Your task to perform on an android device: Open battery settings Image 0: 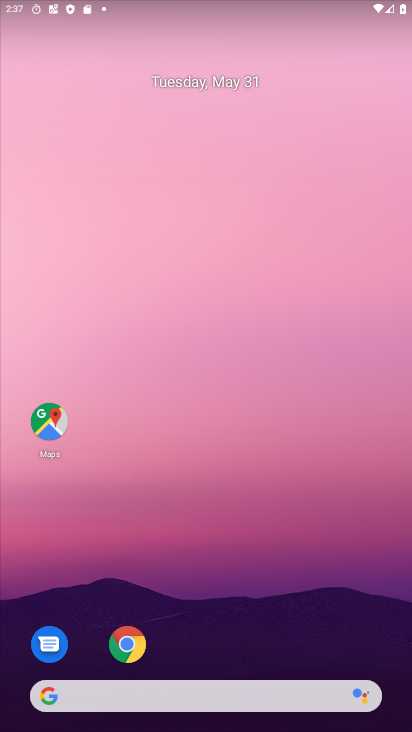
Step 0: drag from (360, 546) to (277, 122)
Your task to perform on an android device: Open battery settings Image 1: 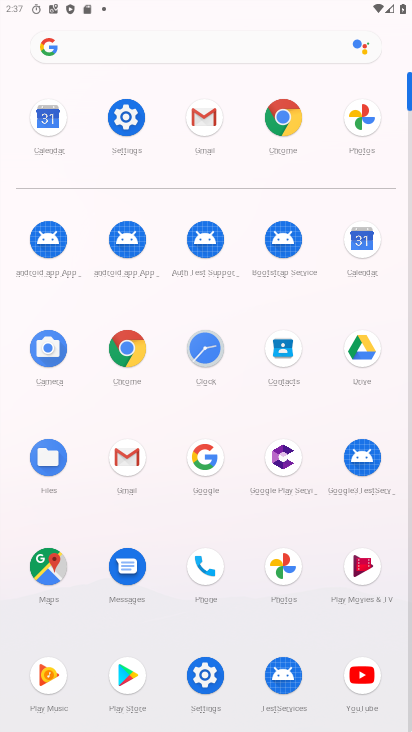
Step 1: click (113, 126)
Your task to perform on an android device: Open battery settings Image 2: 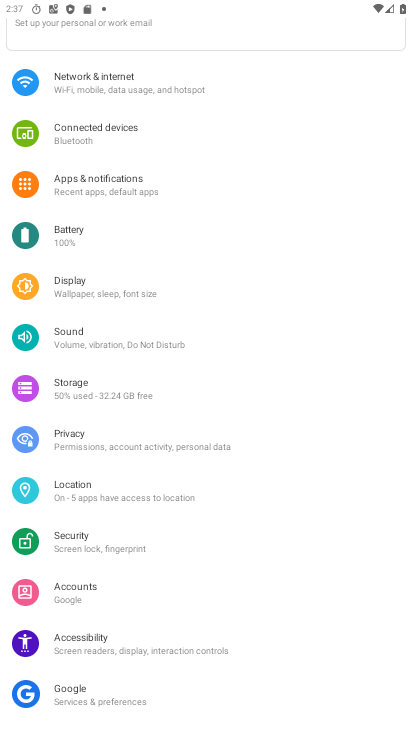
Step 2: click (66, 240)
Your task to perform on an android device: Open battery settings Image 3: 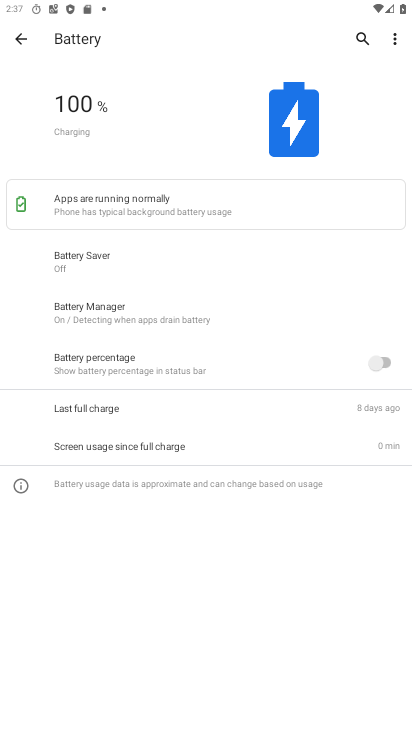
Step 3: task complete